Your task to perform on an android device: Open the web browser Image 0: 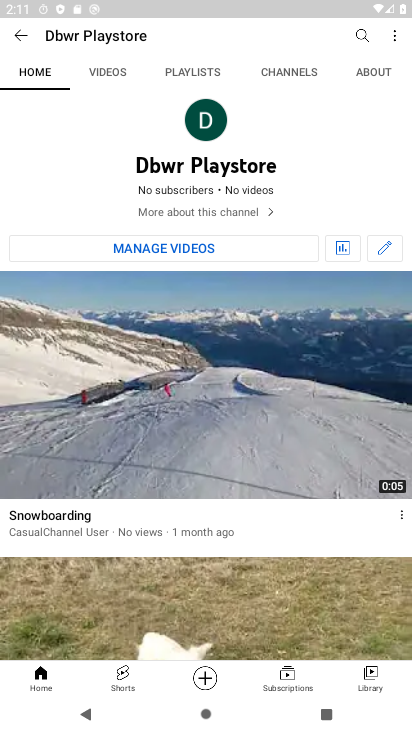
Step 0: press home button
Your task to perform on an android device: Open the web browser Image 1: 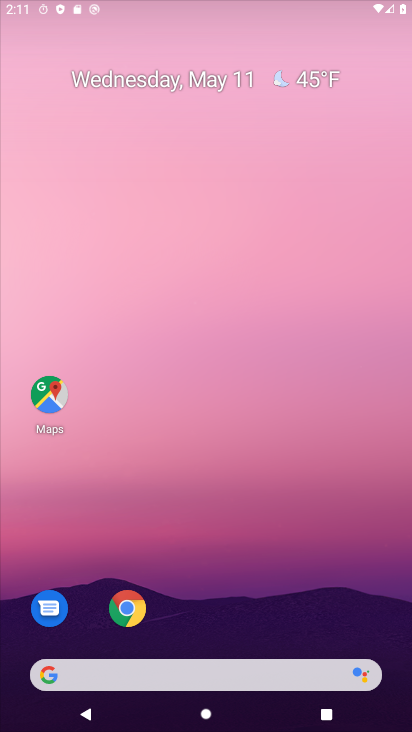
Step 1: drag from (193, 592) to (246, 99)
Your task to perform on an android device: Open the web browser Image 2: 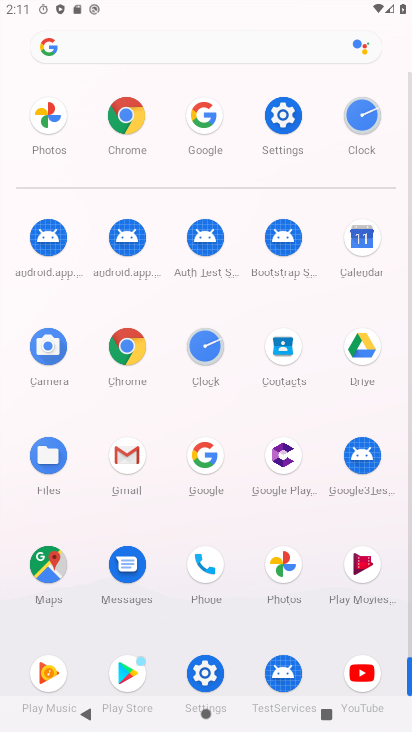
Step 2: click (201, 448)
Your task to perform on an android device: Open the web browser Image 3: 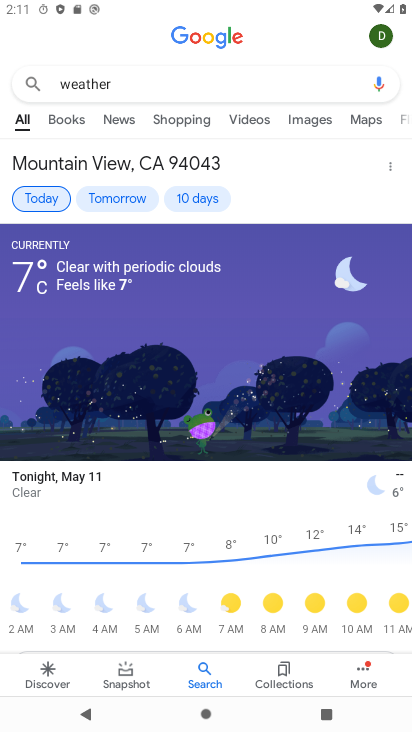
Step 3: task complete